Your task to perform on an android device: toggle show notifications on the lock screen Image 0: 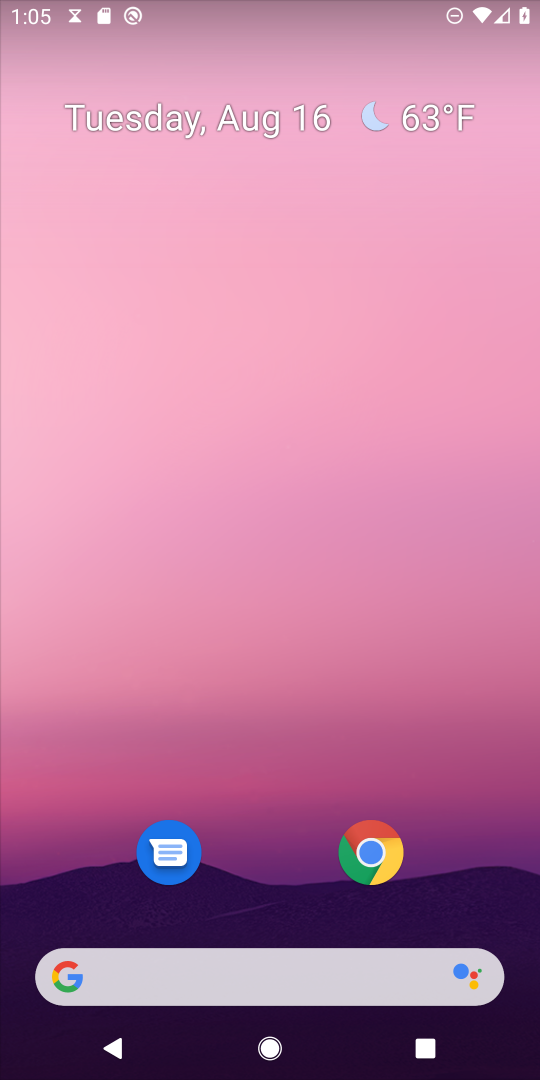
Step 0: drag from (287, 669) to (329, 119)
Your task to perform on an android device: toggle show notifications on the lock screen Image 1: 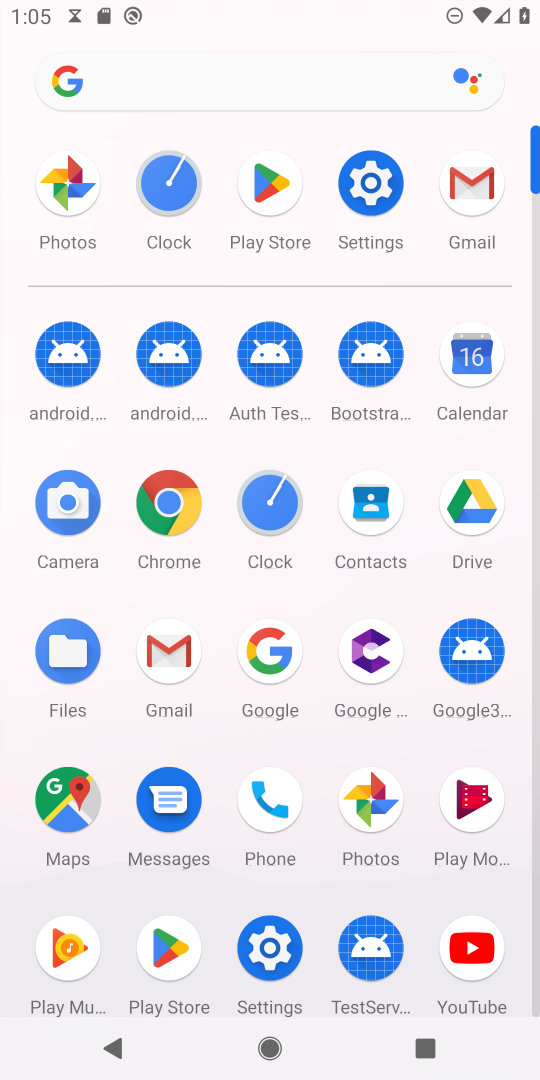
Step 1: click (372, 182)
Your task to perform on an android device: toggle show notifications on the lock screen Image 2: 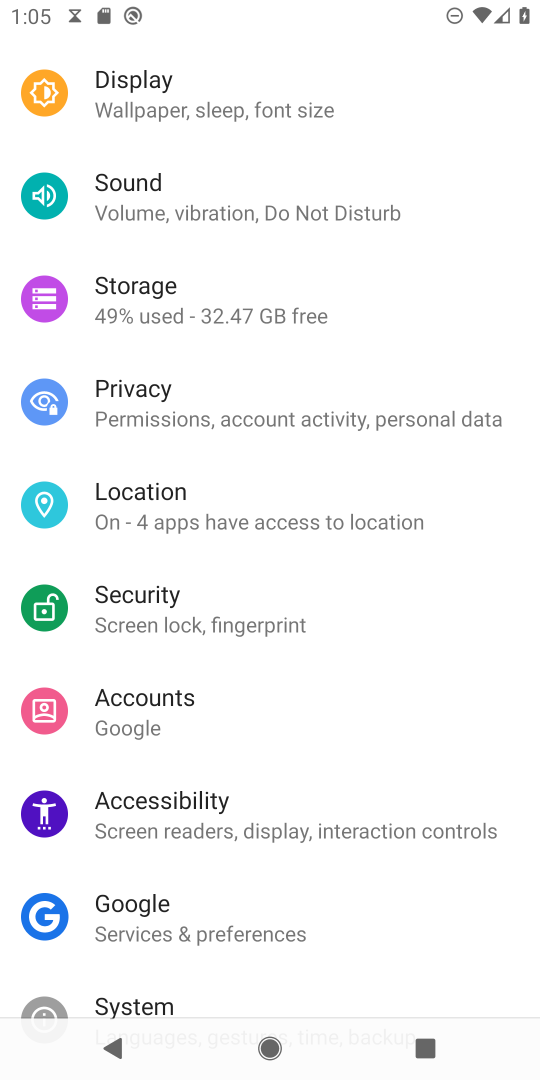
Step 2: drag from (382, 193) to (368, 861)
Your task to perform on an android device: toggle show notifications on the lock screen Image 3: 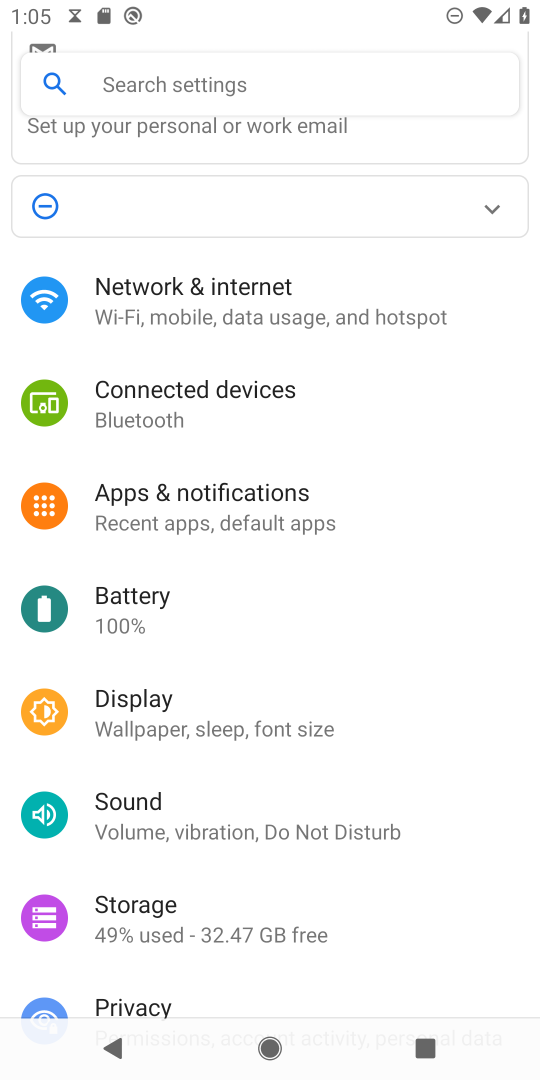
Step 3: click (258, 508)
Your task to perform on an android device: toggle show notifications on the lock screen Image 4: 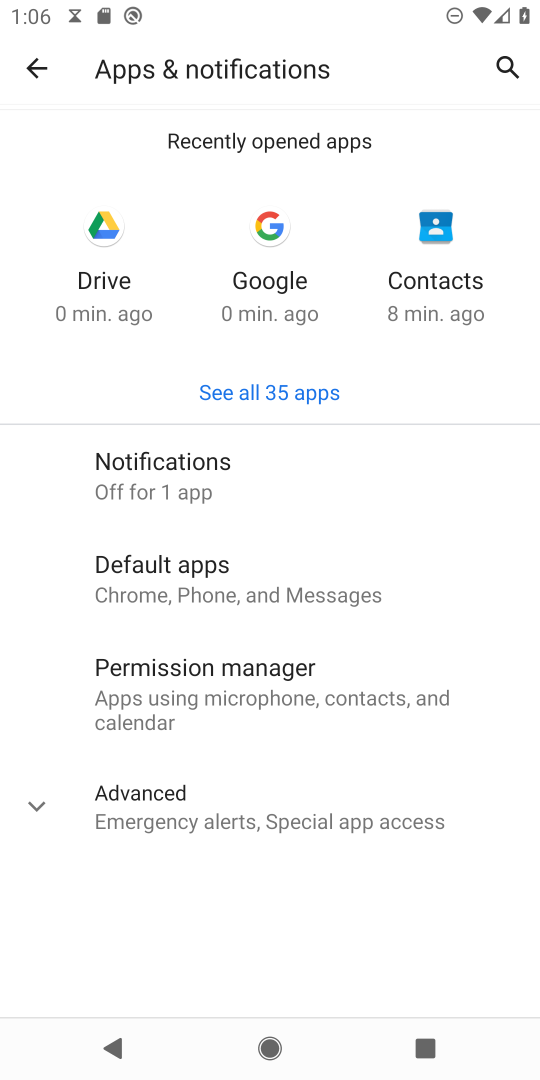
Step 4: click (258, 466)
Your task to perform on an android device: toggle show notifications on the lock screen Image 5: 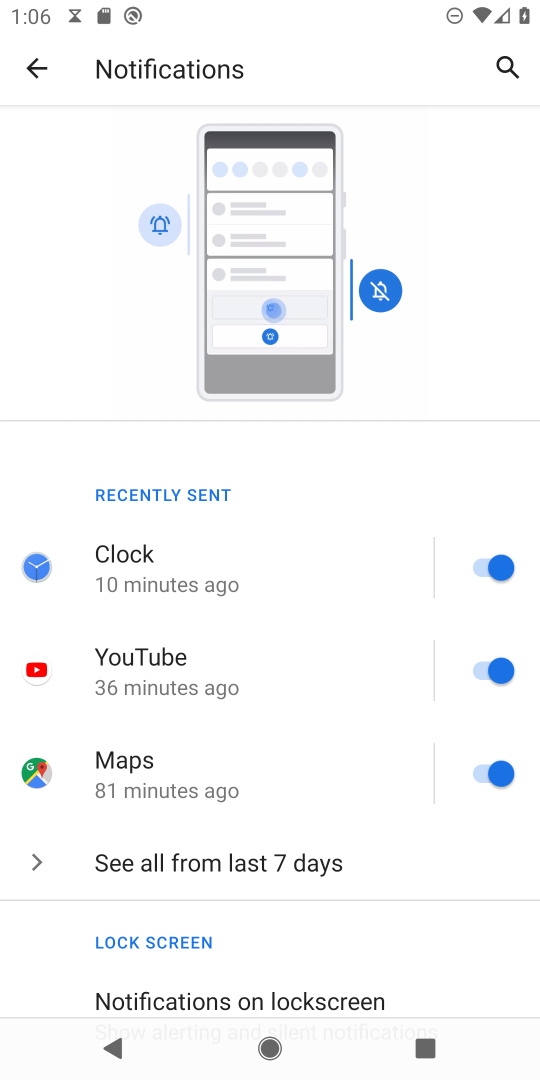
Step 5: click (255, 977)
Your task to perform on an android device: toggle show notifications on the lock screen Image 6: 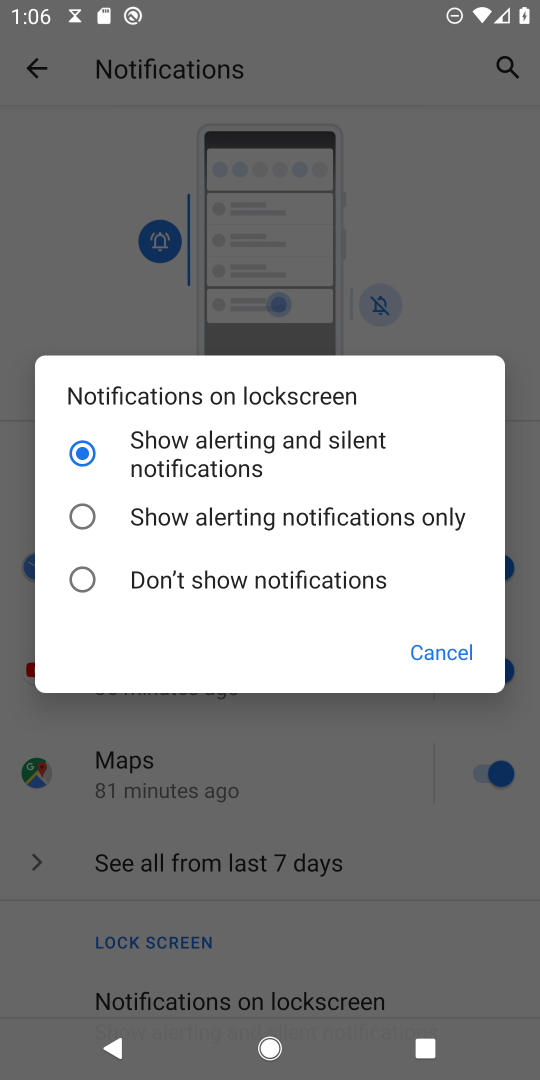
Step 6: task complete